Your task to perform on an android device: Open calendar and show me the second week of next month Image 0: 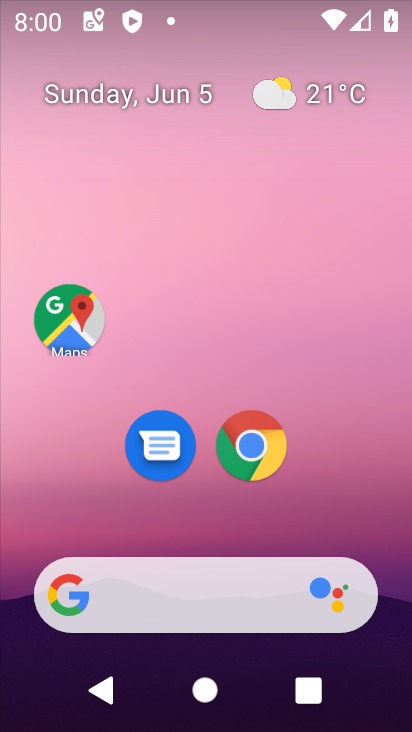
Step 0: drag from (373, 509) to (308, 97)
Your task to perform on an android device: Open calendar and show me the second week of next month Image 1: 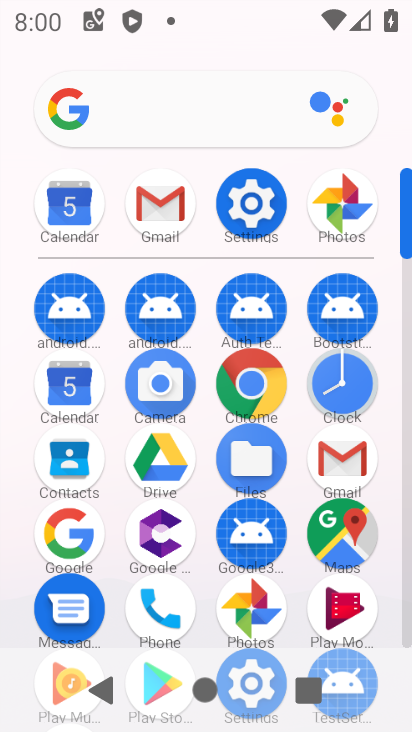
Step 1: click (53, 211)
Your task to perform on an android device: Open calendar and show me the second week of next month Image 2: 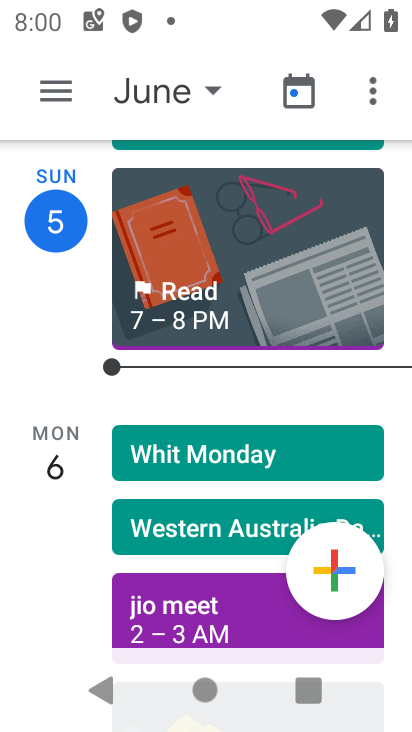
Step 2: click (54, 94)
Your task to perform on an android device: Open calendar and show me the second week of next month Image 3: 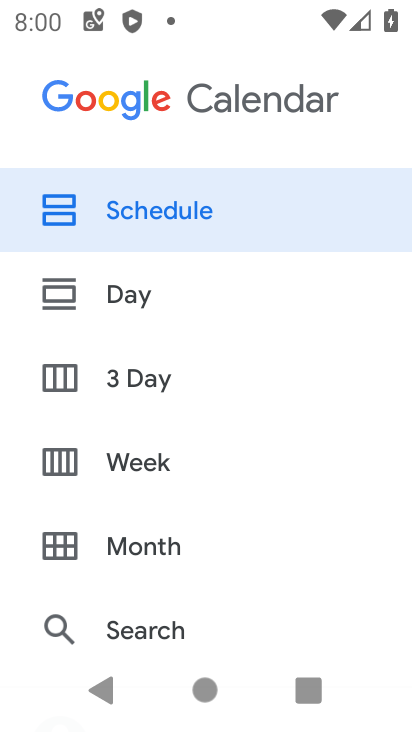
Step 3: click (141, 542)
Your task to perform on an android device: Open calendar and show me the second week of next month Image 4: 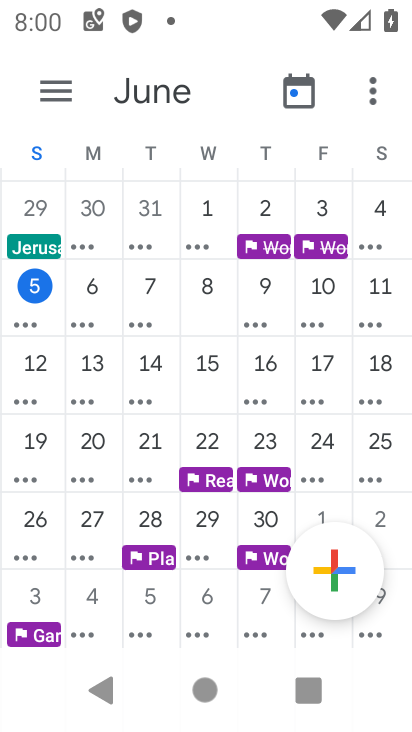
Step 4: drag from (371, 412) to (56, 377)
Your task to perform on an android device: Open calendar and show me the second week of next month Image 5: 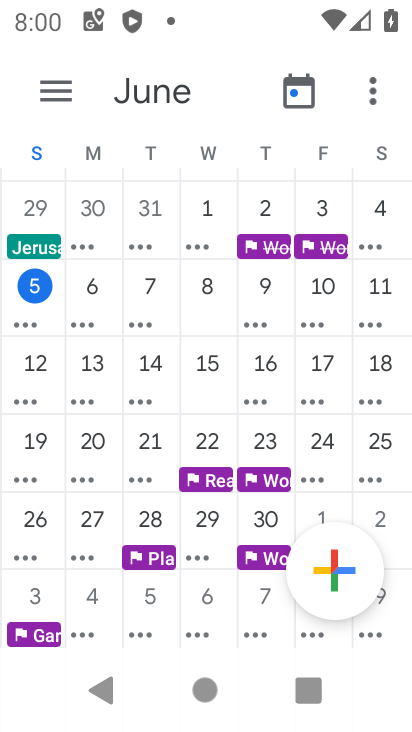
Step 5: drag from (384, 342) to (18, 446)
Your task to perform on an android device: Open calendar and show me the second week of next month Image 6: 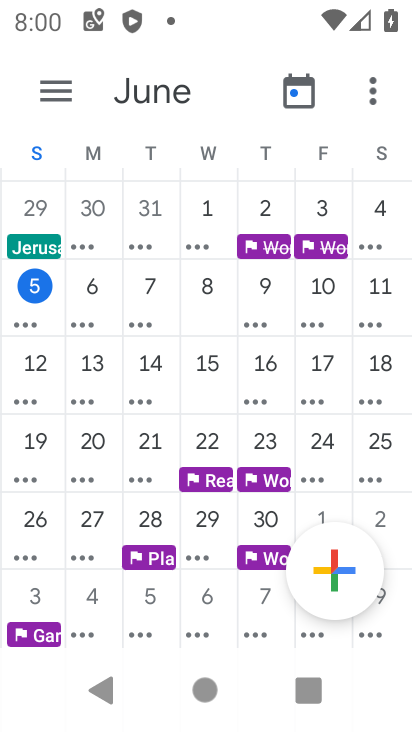
Step 6: drag from (378, 341) to (5, 303)
Your task to perform on an android device: Open calendar and show me the second week of next month Image 7: 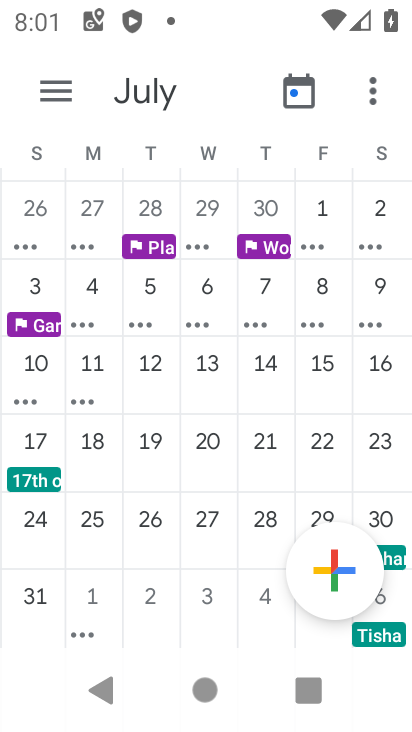
Step 7: click (34, 300)
Your task to perform on an android device: Open calendar and show me the second week of next month Image 8: 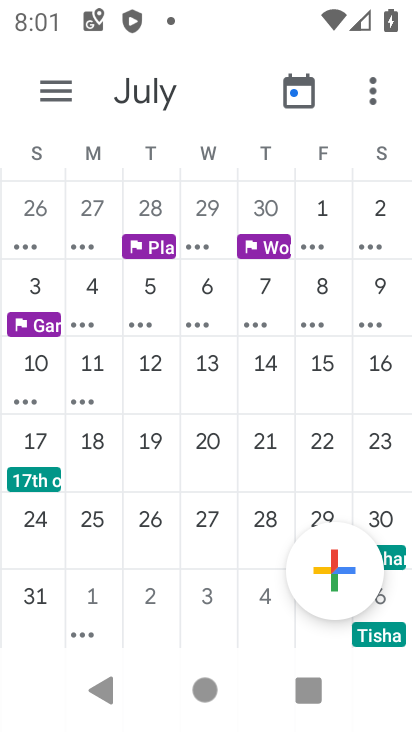
Step 8: drag from (34, 298) to (263, 306)
Your task to perform on an android device: Open calendar and show me the second week of next month Image 9: 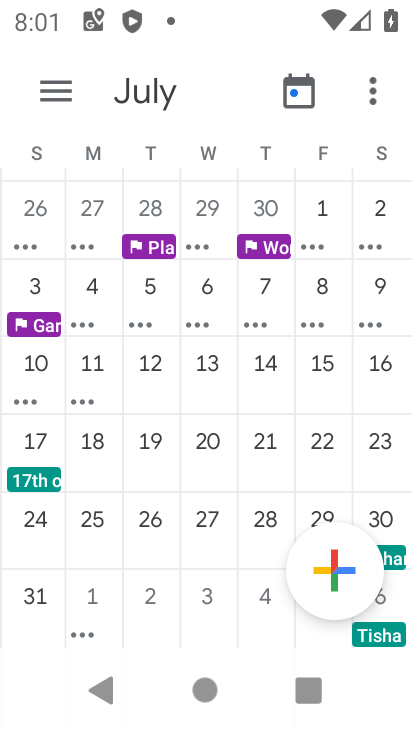
Step 9: click (28, 294)
Your task to perform on an android device: Open calendar and show me the second week of next month Image 10: 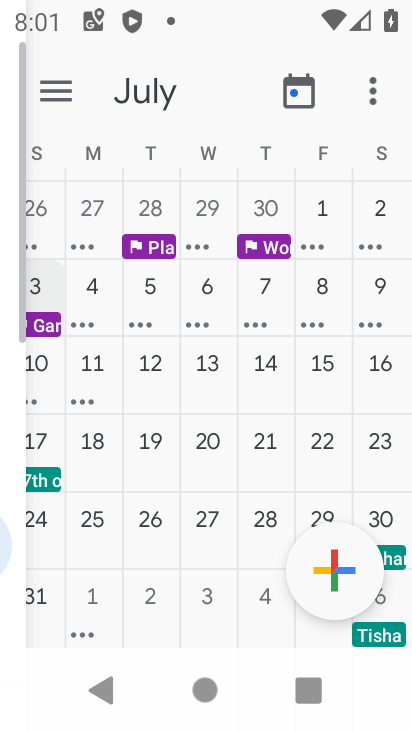
Step 10: click (26, 294)
Your task to perform on an android device: Open calendar and show me the second week of next month Image 11: 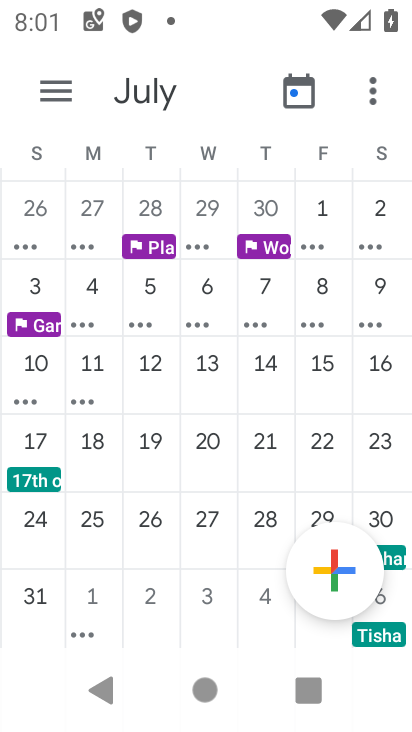
Step 11: click (30, 296)
Your task to perform on an android device: Open calendar and show me the second week of next month Image 12: 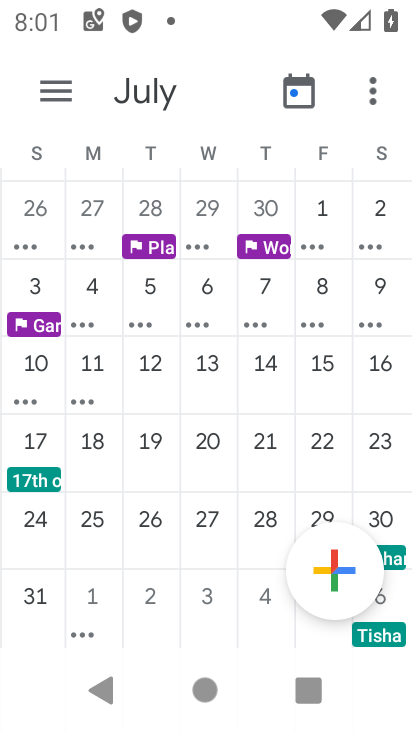
Step 12: click (210, 289)
Your task to perform on an android device: Open calendar and show me the second week of next month Image 13: 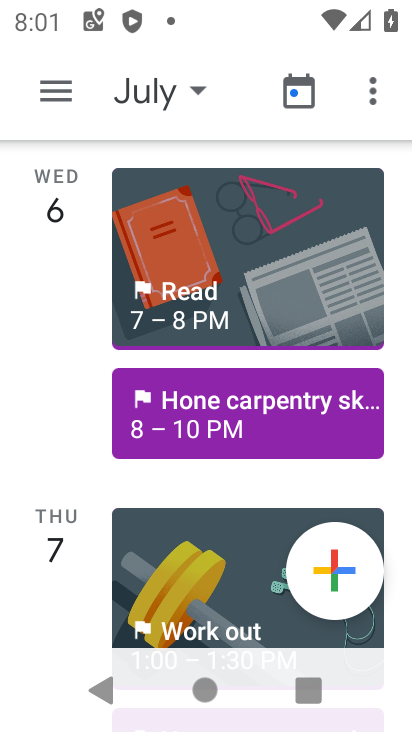
Step 13: task complete